Your task to perform on an android device: Clear all items from cart on walmart.com. Search for "macbook pro" on walmart.com, select the first entry, and add it to the cart. Image 0: 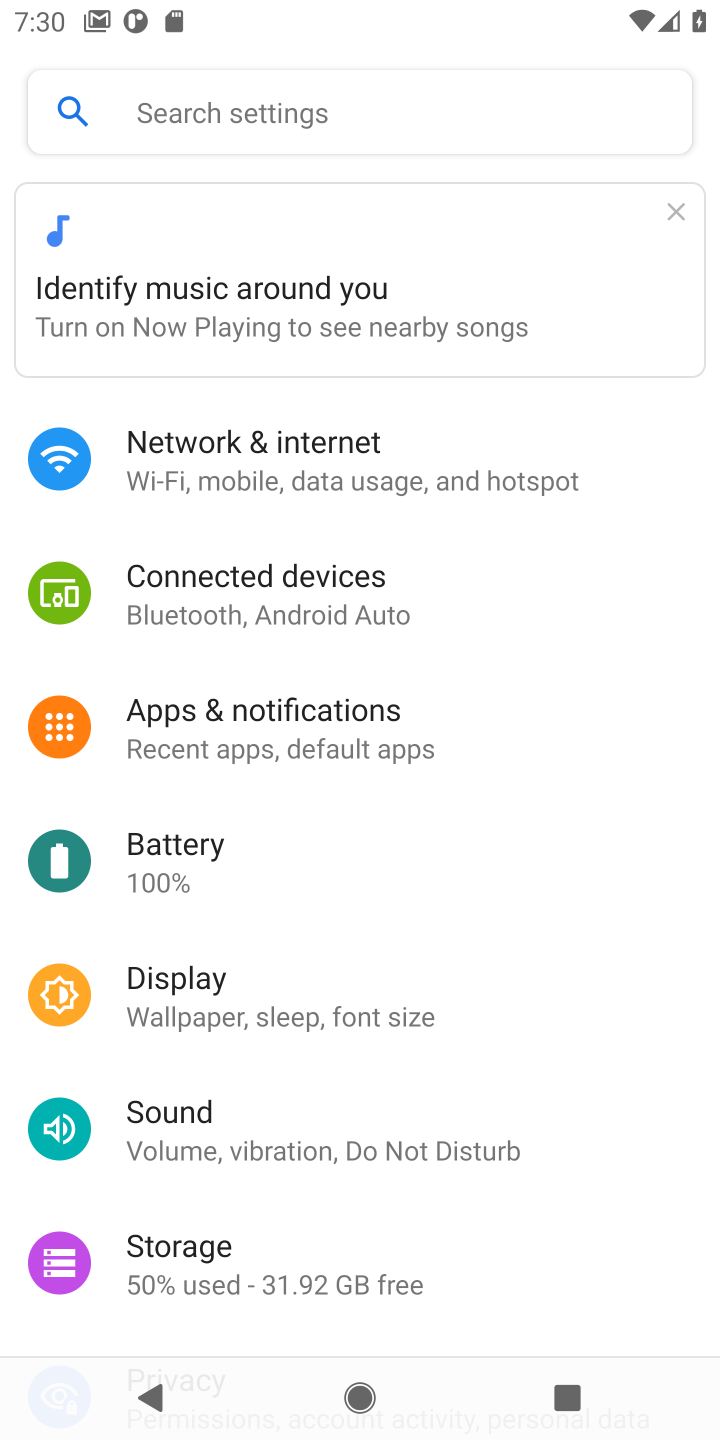
Step 0: press home button
Your task to perform on an android device: Clear all items from cart on walmart.com. Search for "macbook pro" on walmart.com, select the first entry, and add it to the cart. Image 1: 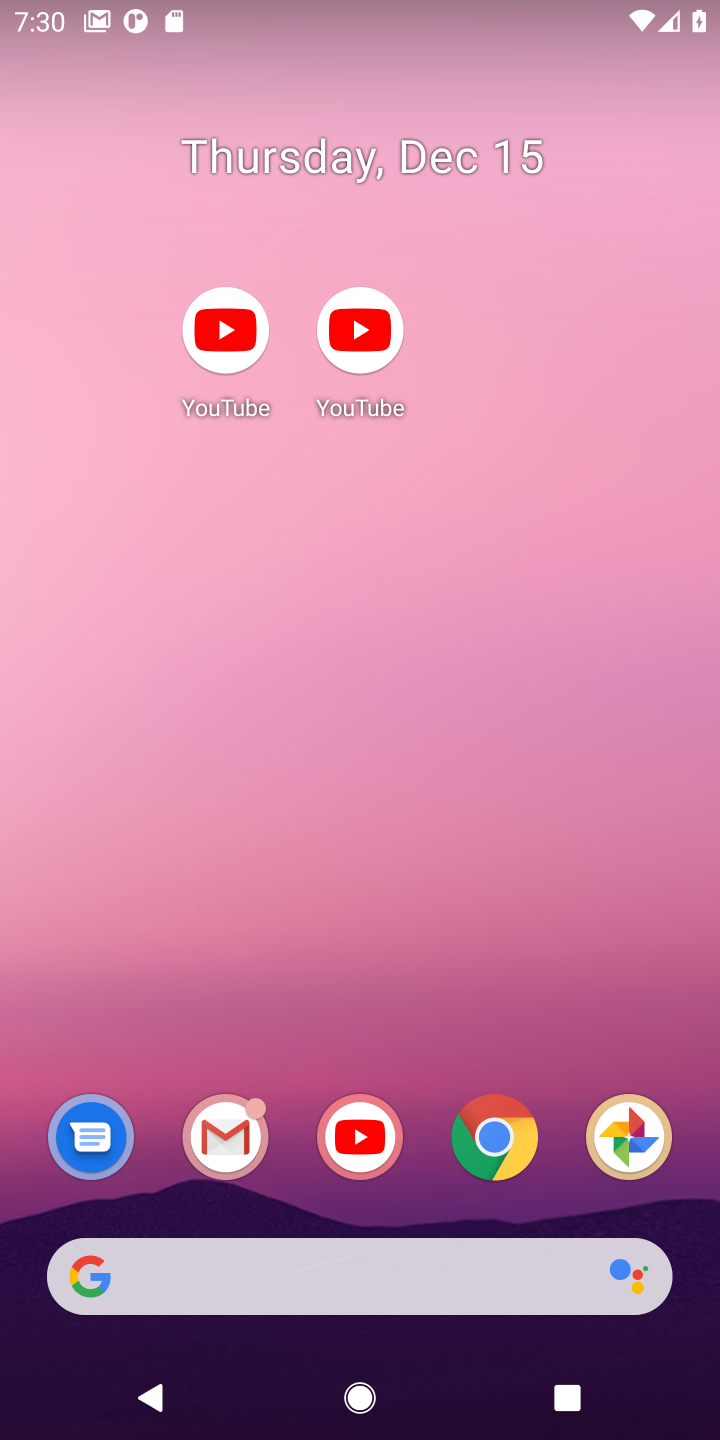
Step 1: drag from (255, 1238) to (264, 467)
Your task to perform on an android device: Clear all items from cart on walmart.com. Search for "macbook pro" on walmart.com, select the first entry, and add it to the cart. Image 2: 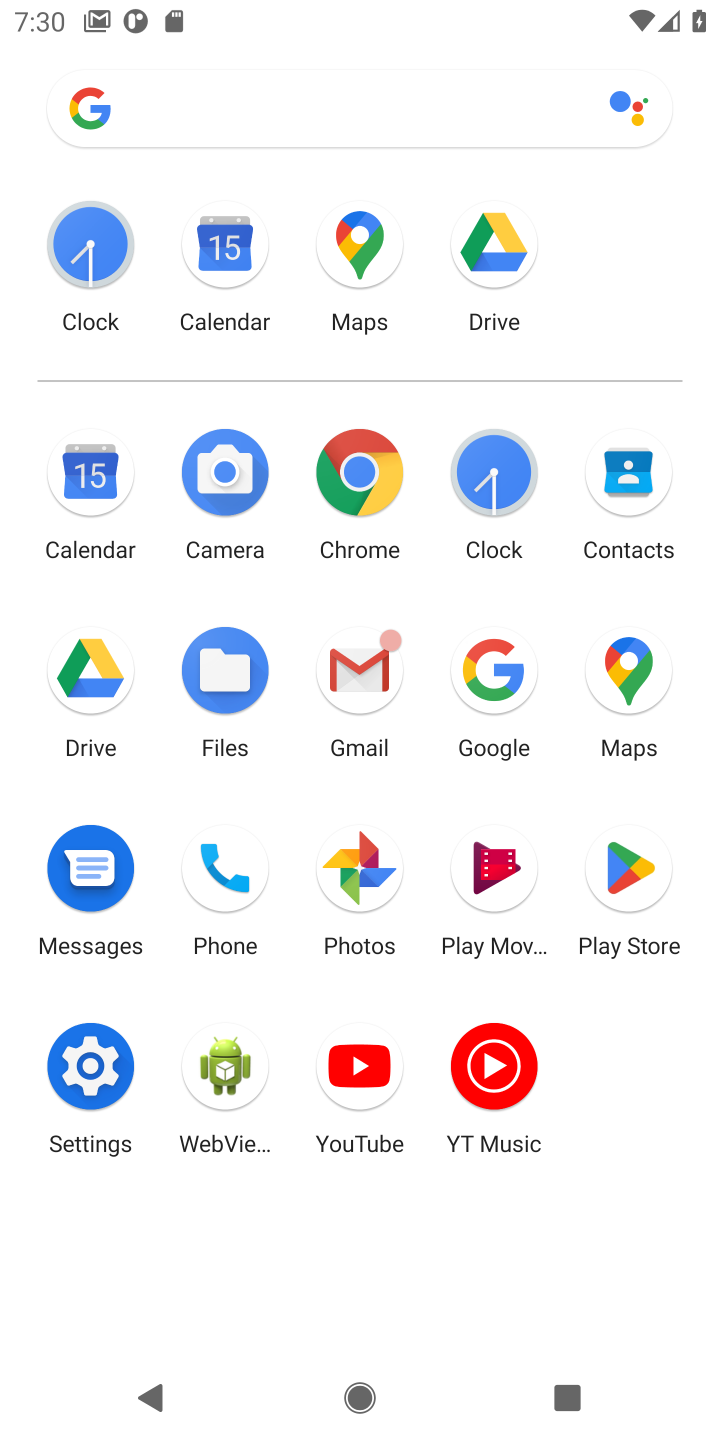
Step 2: click (475, 677)
Your task to perform on an android device: Clear all items from cart on walmart.com. Search for "macbook pro" on walmart.com, select the first entry, and add it to the cart. Image 3: 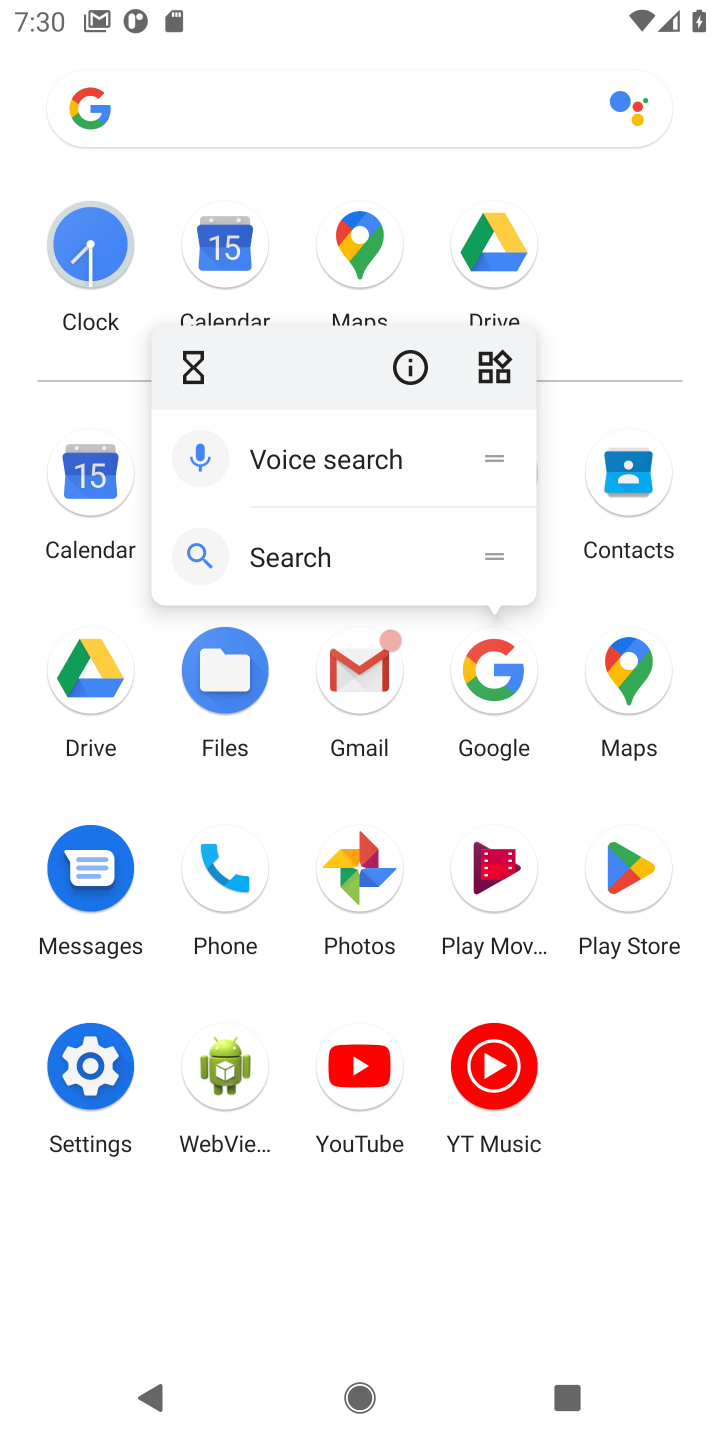
Step 3: click (496, 660)
Your task to perform on an android device: Clear all items from cart on walmart.com. Search for "macbook pro" on walmart.com, select the first entry, and add it to the cart. Image 4: 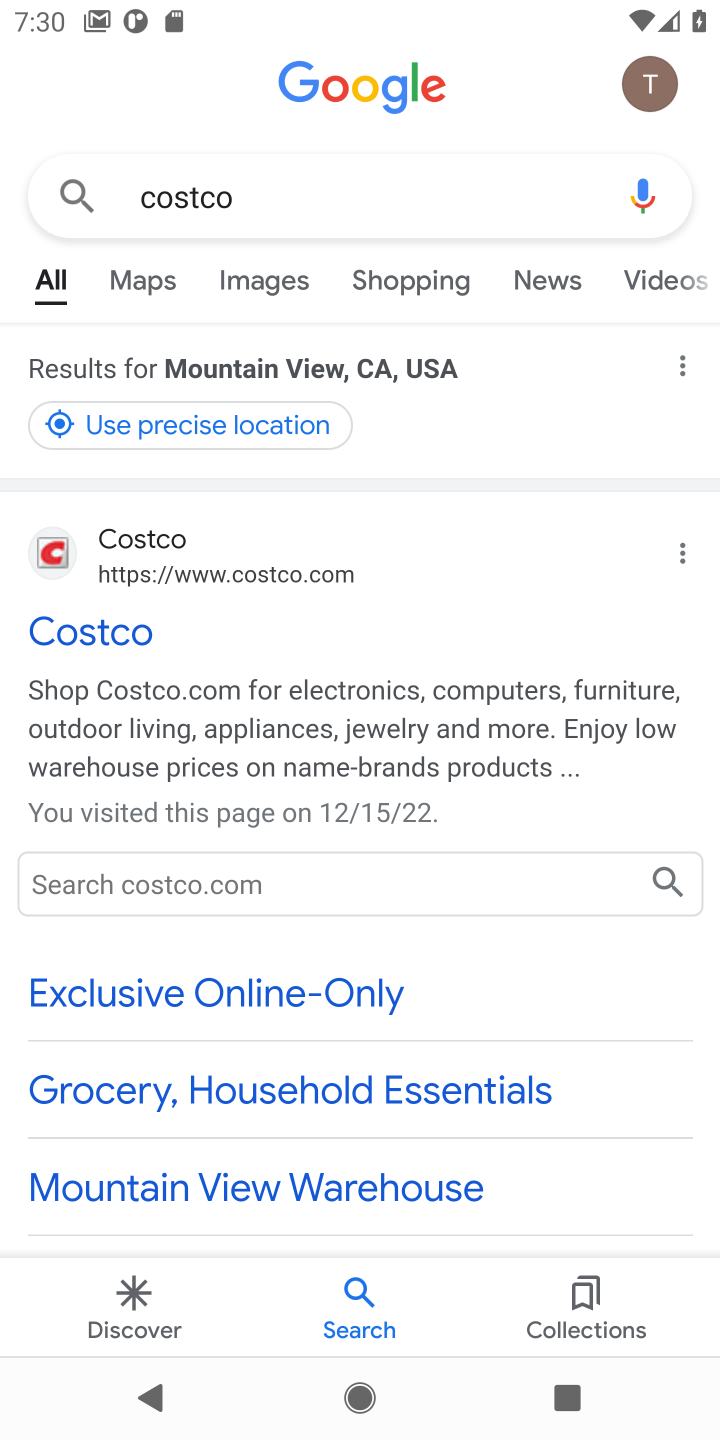
Step 4: click (212, 203)
Your task to perform on an android device: Clear all items from cart on walmart.com. Search for "macbook pro" on walmart.com, select the first entry, and add it to the cart. Image 5: 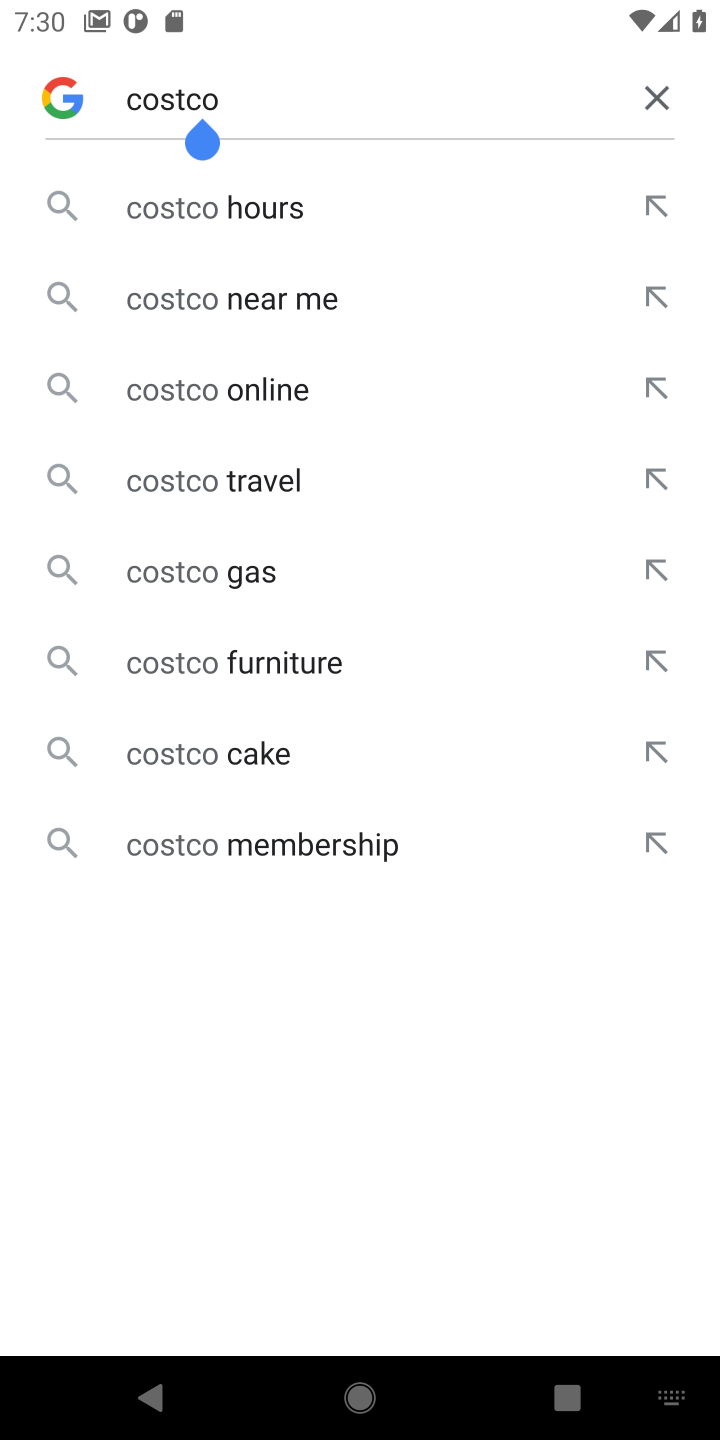
Step 5: click (646, 101)
Your task to perform on an android device: Clear all items from cart on walmart.com. Search for "macbook pro" on walmart.com, select the first entry, and add it to the cart. Image 6: 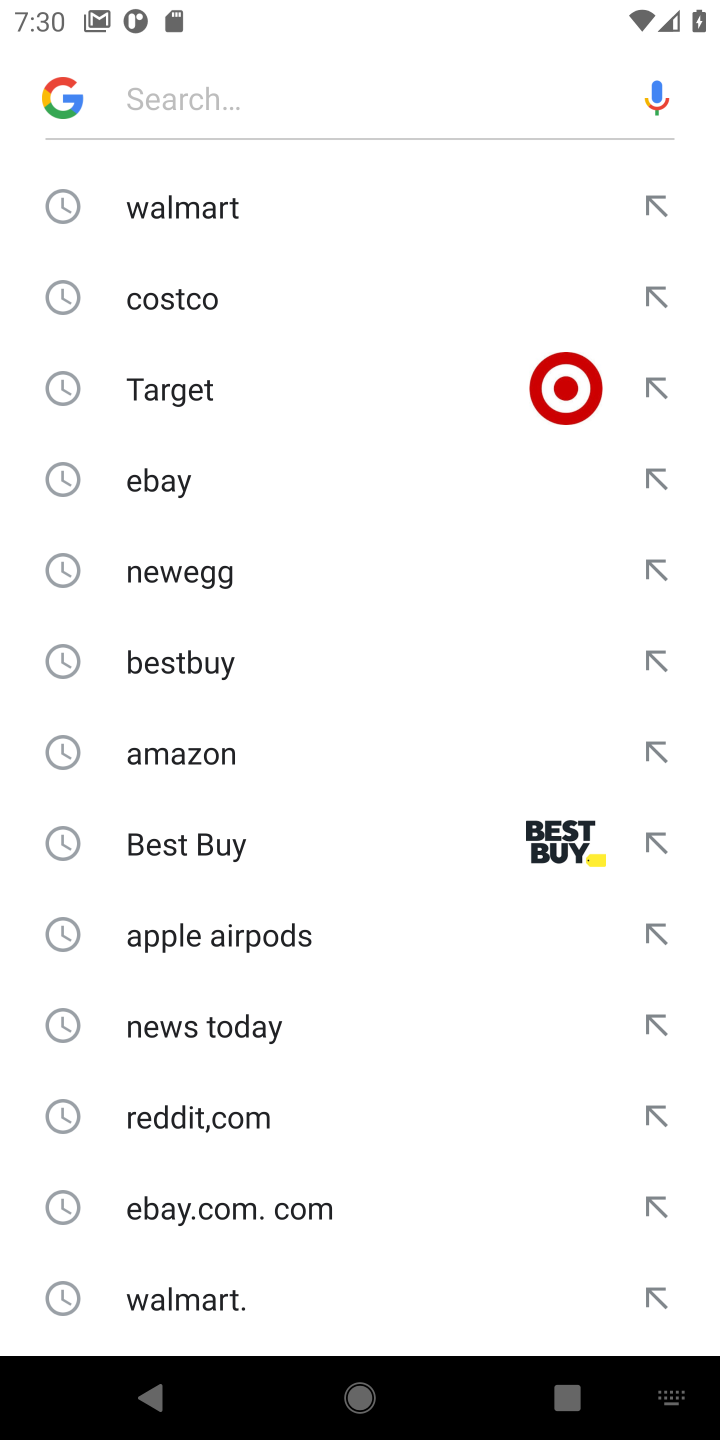
Step 6: click (185, 208)
Your task to perform on an android device: Clear all items from cart on walmart.com. Search for "macbook pro" on walmart.com, select the first entry, and add it to the cart. Image 7: 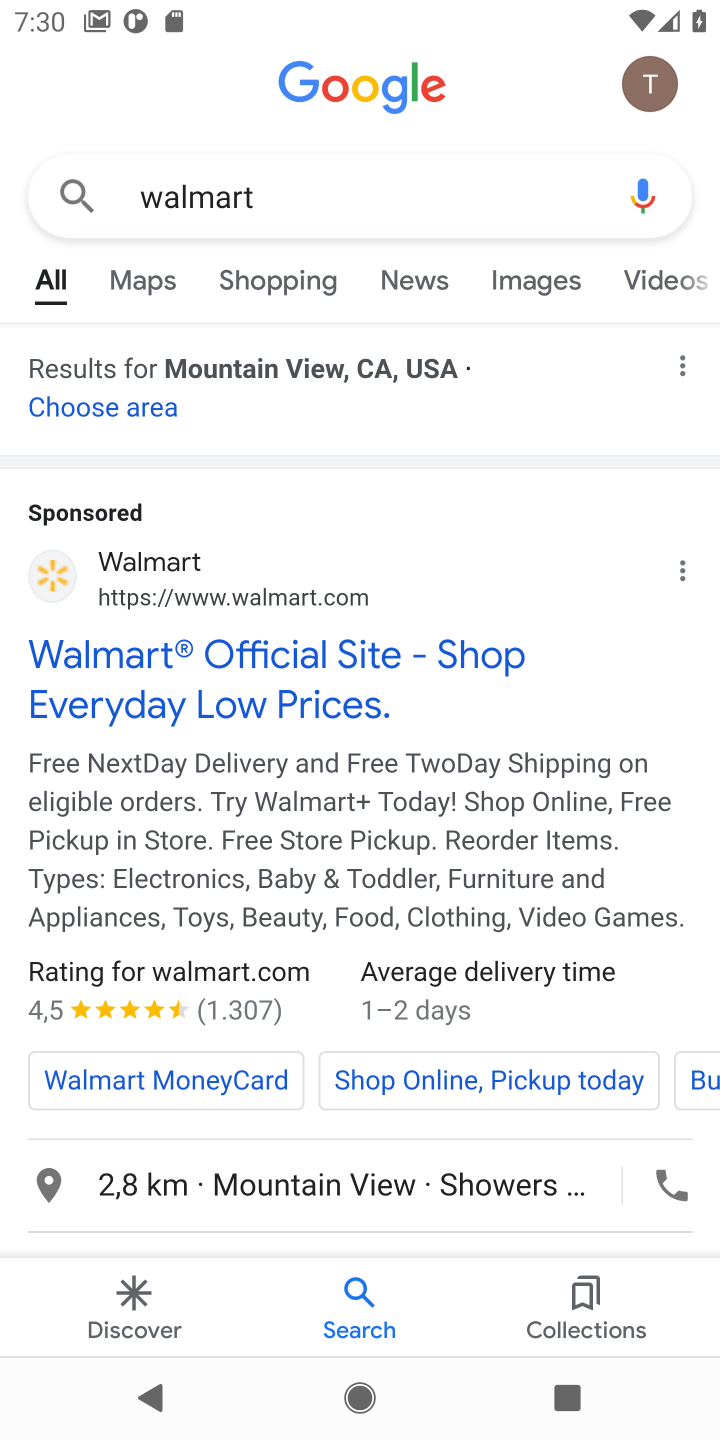
Step 7: drag from (208, 716) to (188, 420)
Your task to perform on an android device: Clear all items from cart on walmart.com. Search for "macbook pro" on walmart.com, select the first entry, and add it to the cart. Image 8: 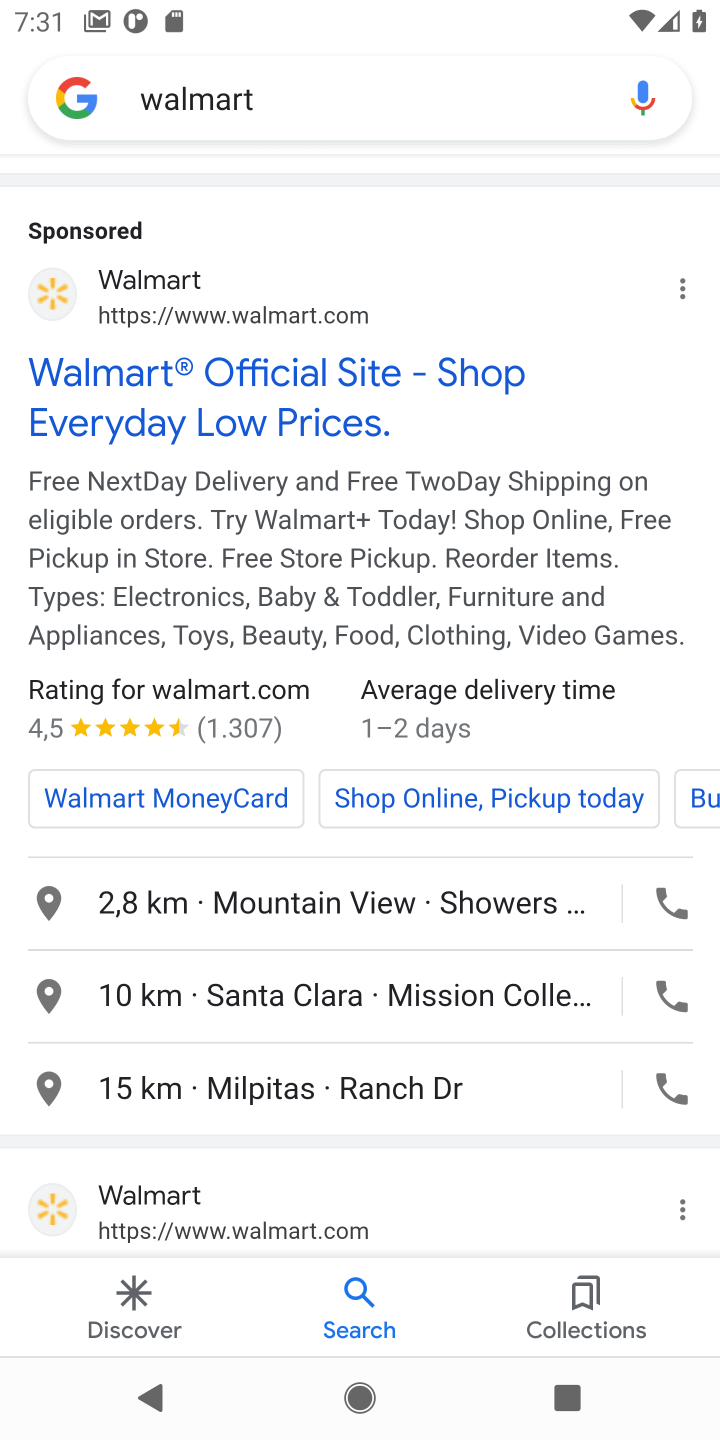
Step 8: drag from (245, 1131) to (230, 626)
Your task to perform on an android device: Clear all items from cart on walmart.com. Search for "macbook pro" on walmart.com, select the first entry, and add it to the cart. Image 9: 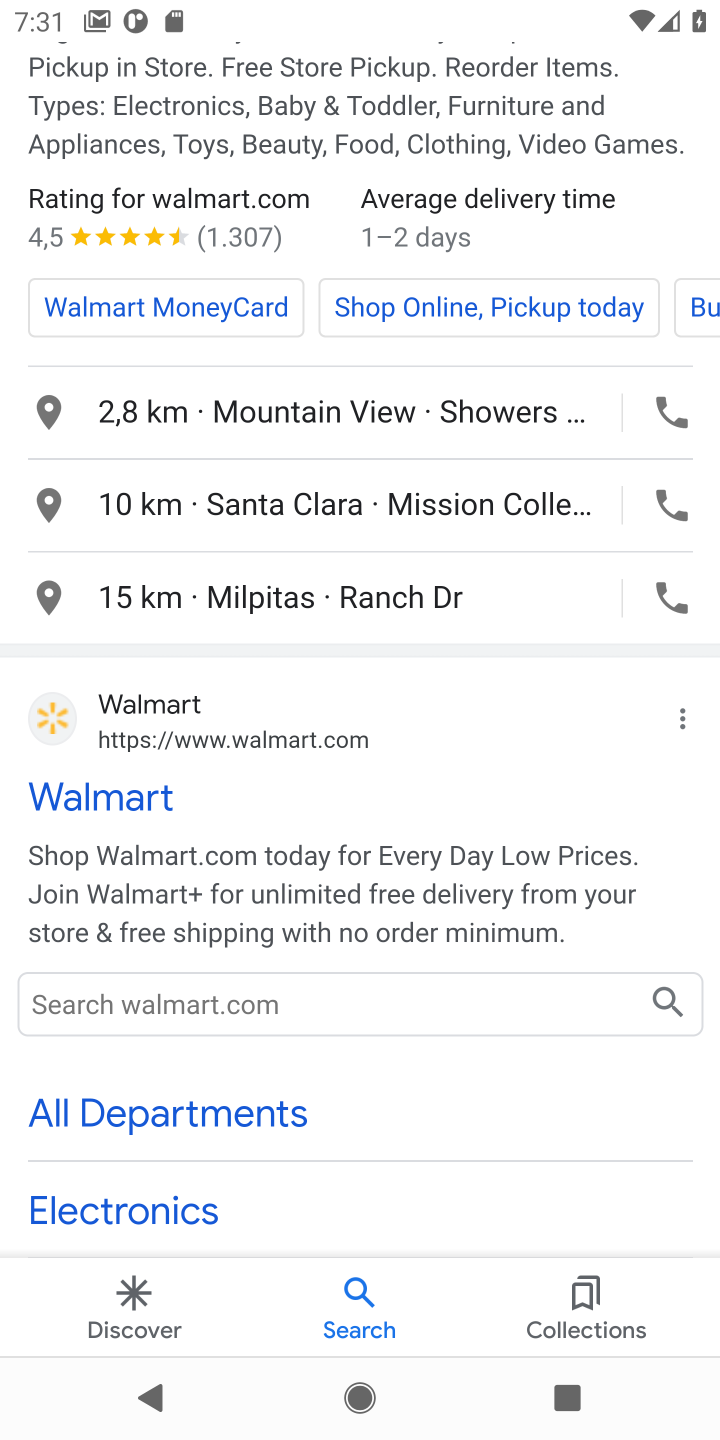
Step 9: click (76, 789)
Your task to perform on an android device: Clear all items from cart on walmart.com. Search for "macbook pro" on walmart.com, select the first entry, and add it to the cart. Image 10: 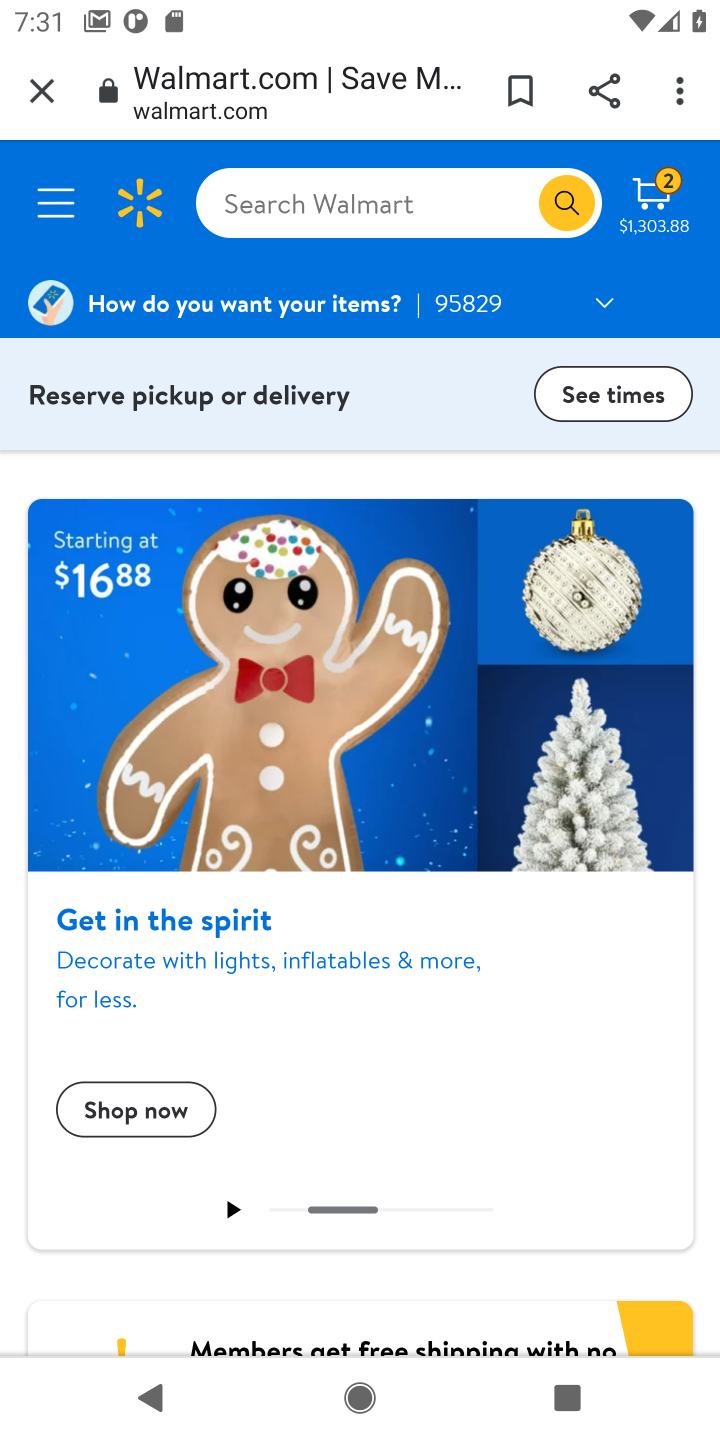
Step 10: click (635, 187)
Your task to perform on an android device: Clear all items from cart on walmart.com. Search for "macbook pro" on walmart.com, select the first entry, and add it to the cart. Image 11: 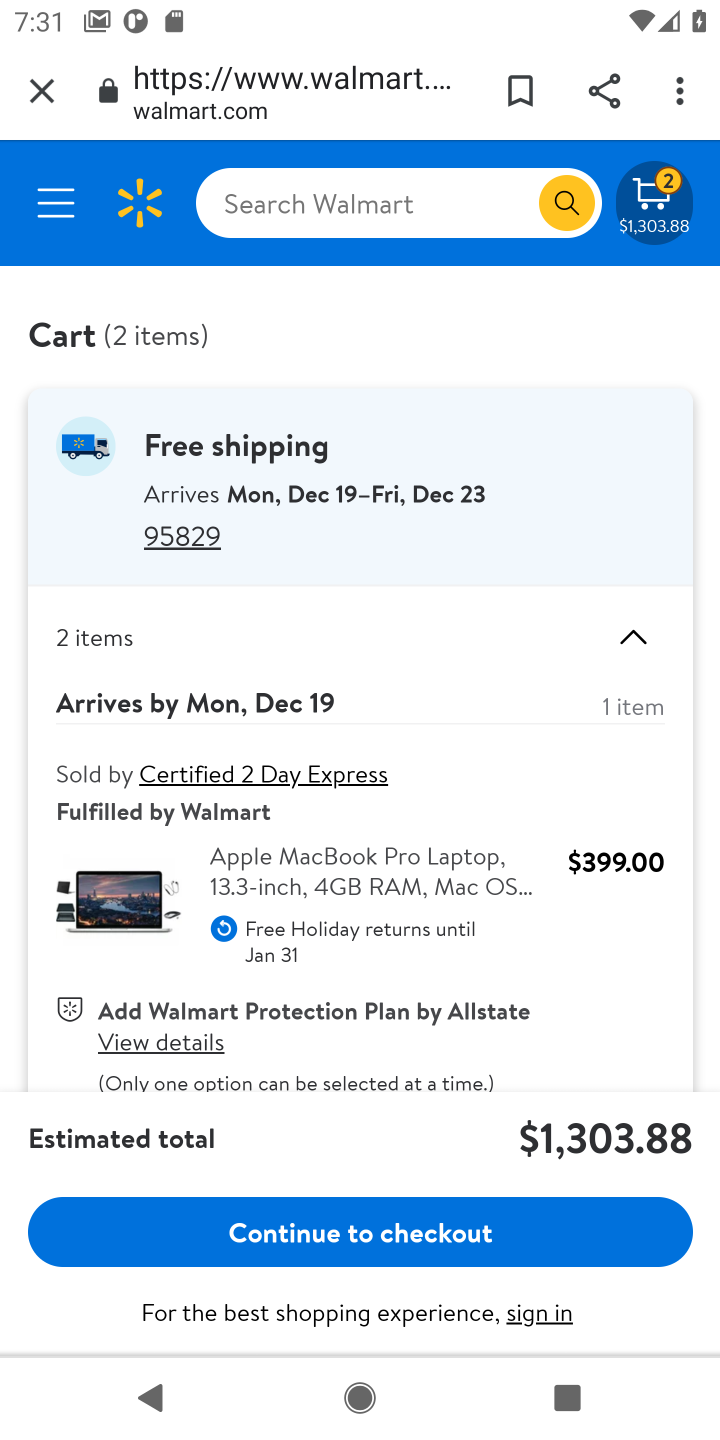
Step 11: drag from (179, 1085) to (179, 661)
Your task to perform on an android device: Clear all items from cart on walmart.com. Search for "macbook pro" on walmart.com, select the first entry, and add it to the cart. Image 12: 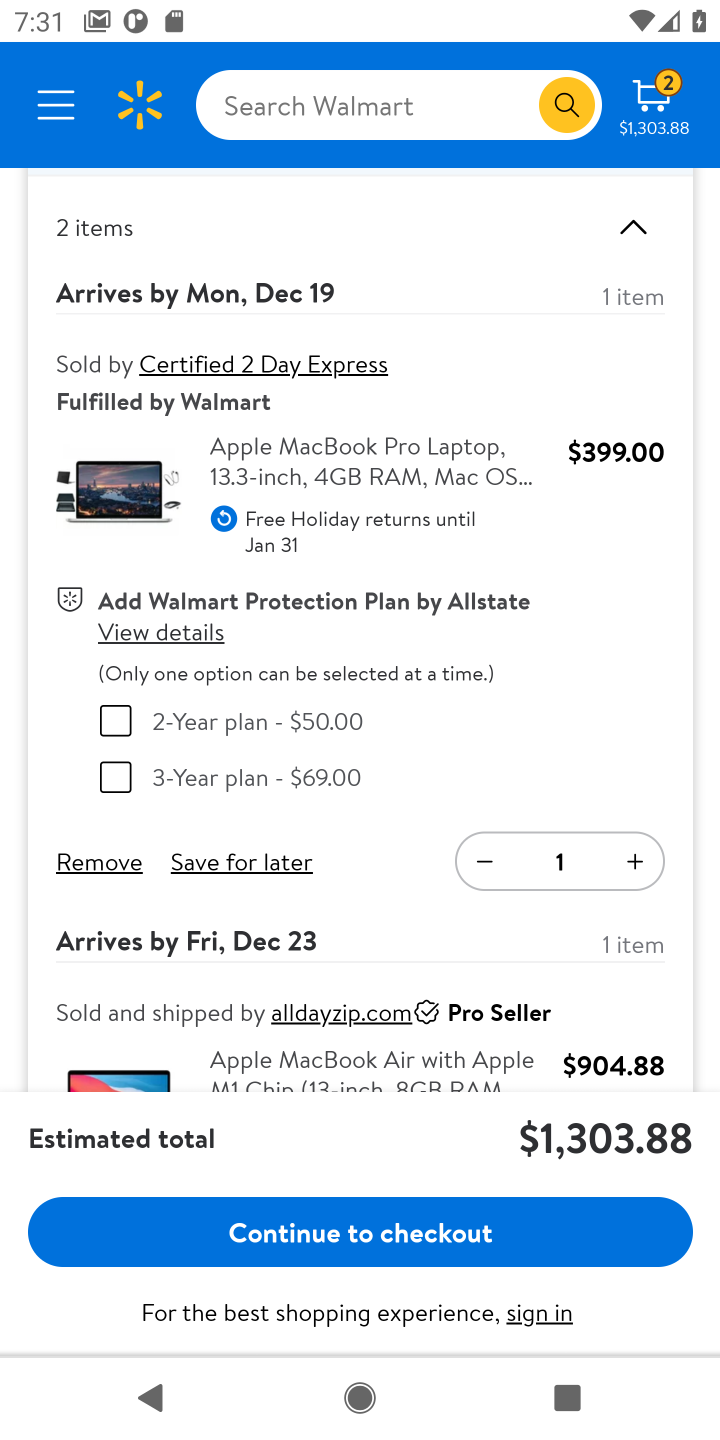
Step 12: click (98, 877)
Your task to perform on an android device: Clear all items from cart on walmart.com. Search for "macbook pro" on walmart.com, select the first entry, and add it to the cart. Image 13: 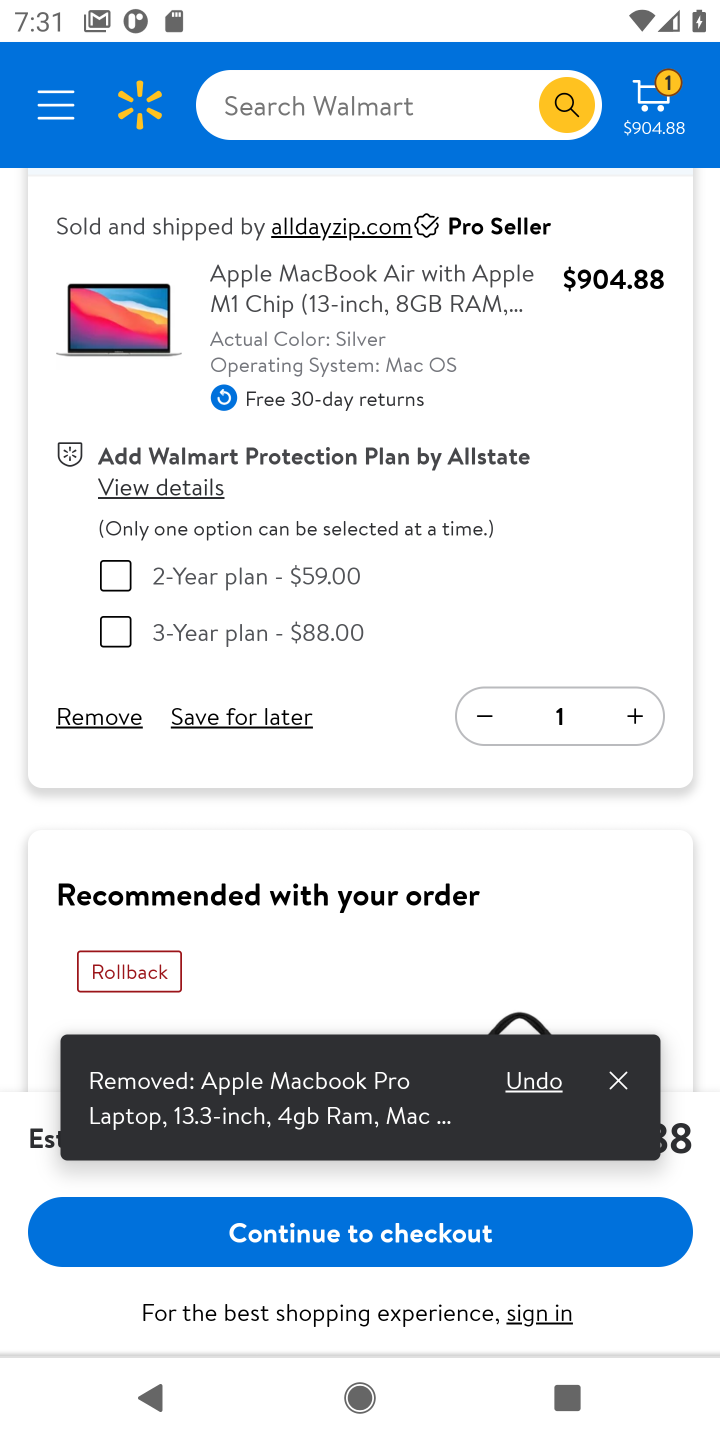
Step 13: click (100, 714)
Your task to perform on an android device: Clear all items from cart on walmart.com. Search for "macbook pro" on walmart.com, select the first entry, and add it to the cart. Image 14: 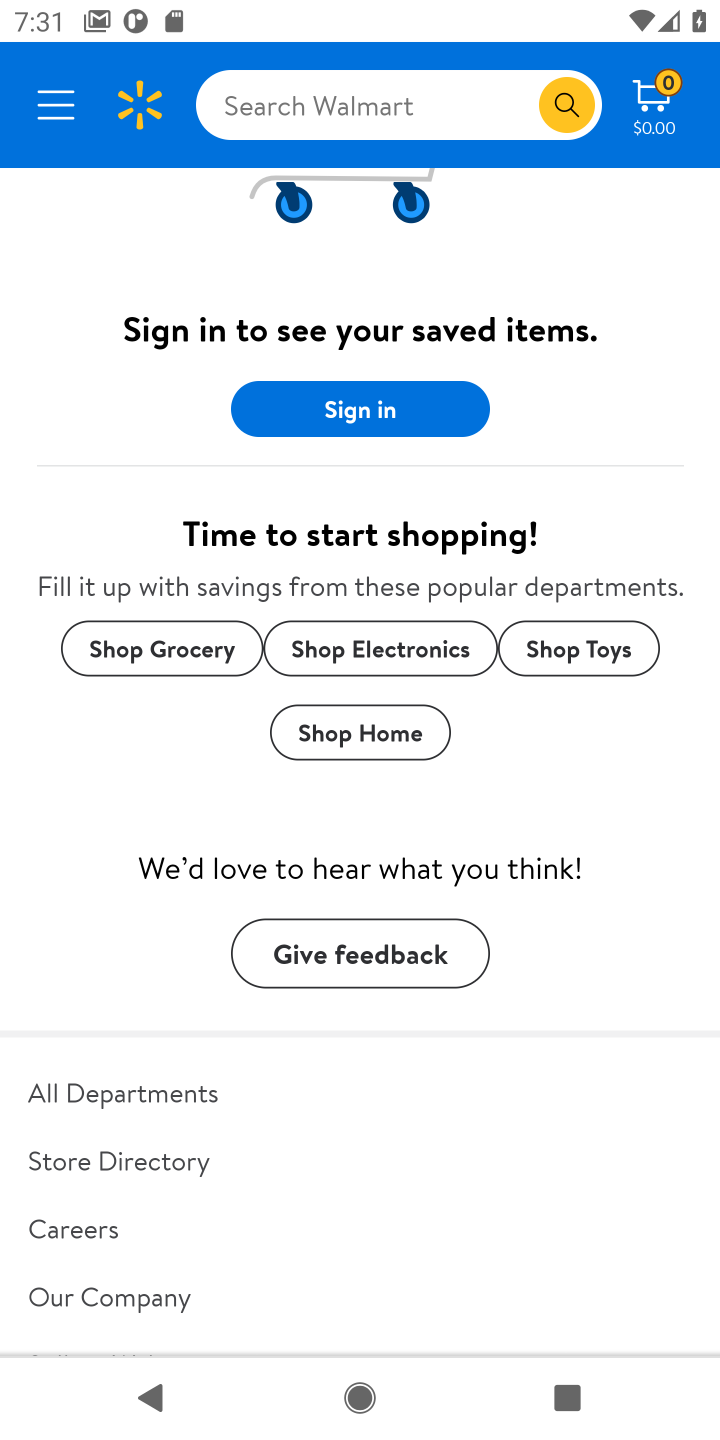
Step 14: click (303, 110)
Your task to perform on an android device: Clear all items from cart on walmart.com. Search for "macbook pro" on walmart.com, select the first entry, and add it to the cart. Image 15: 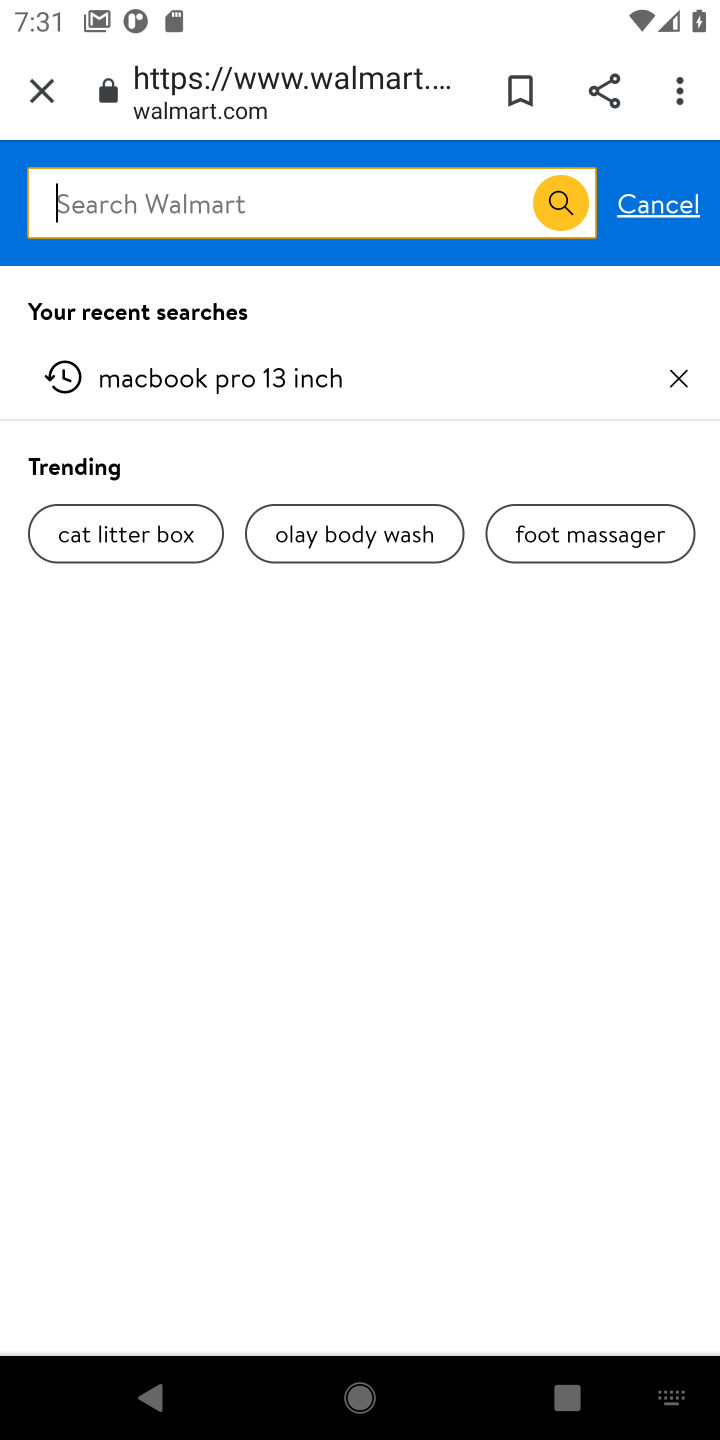
Step 15: type "macbook pro"
Your task to perform on an android device: Clear all items from cart on walmart.com. Search for "macbook pro" on walmart.com, select the first entry, and add it to the cart. Image 16: 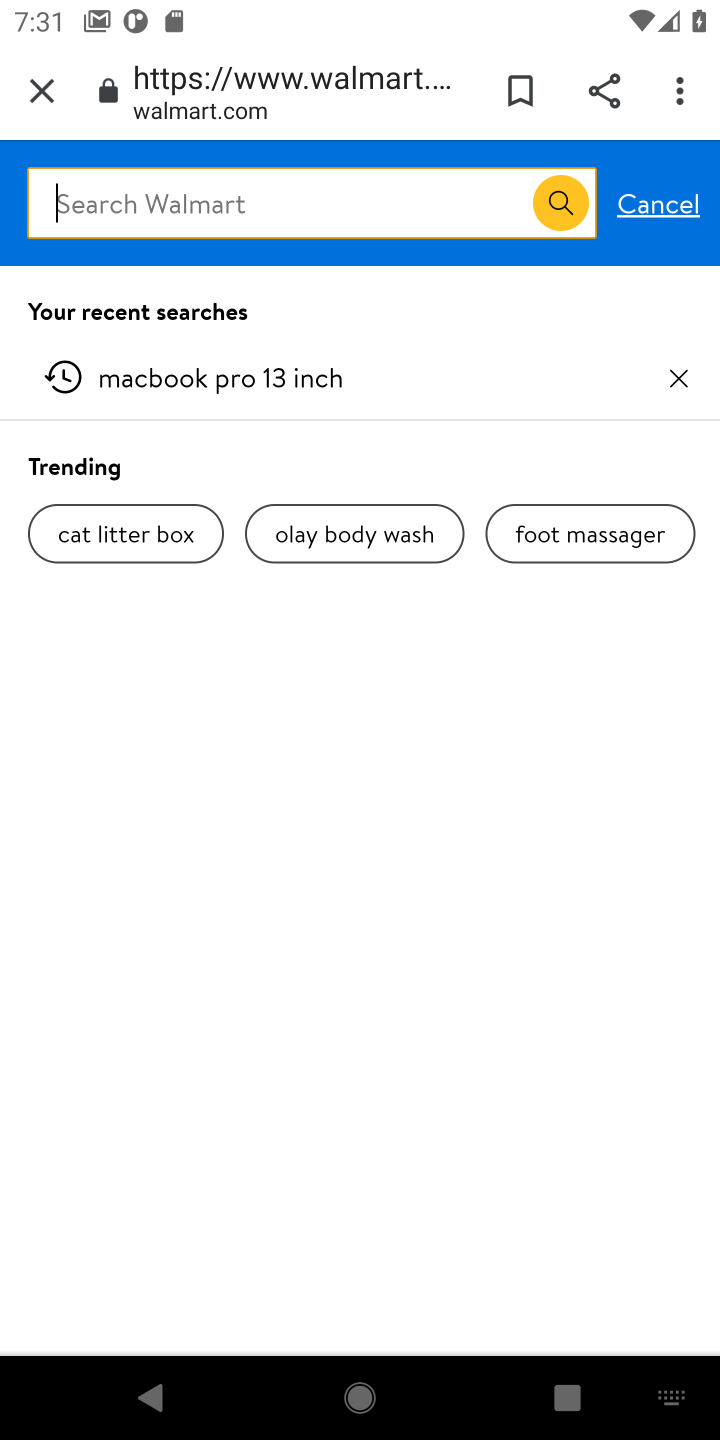
Step 16: click (570, 198)
Your task to perform on an android device: Clear all items from cart on walmart.com. Search for "macbook pro" on walmart.com, select the first entry, and add it to the cart. Image 17: 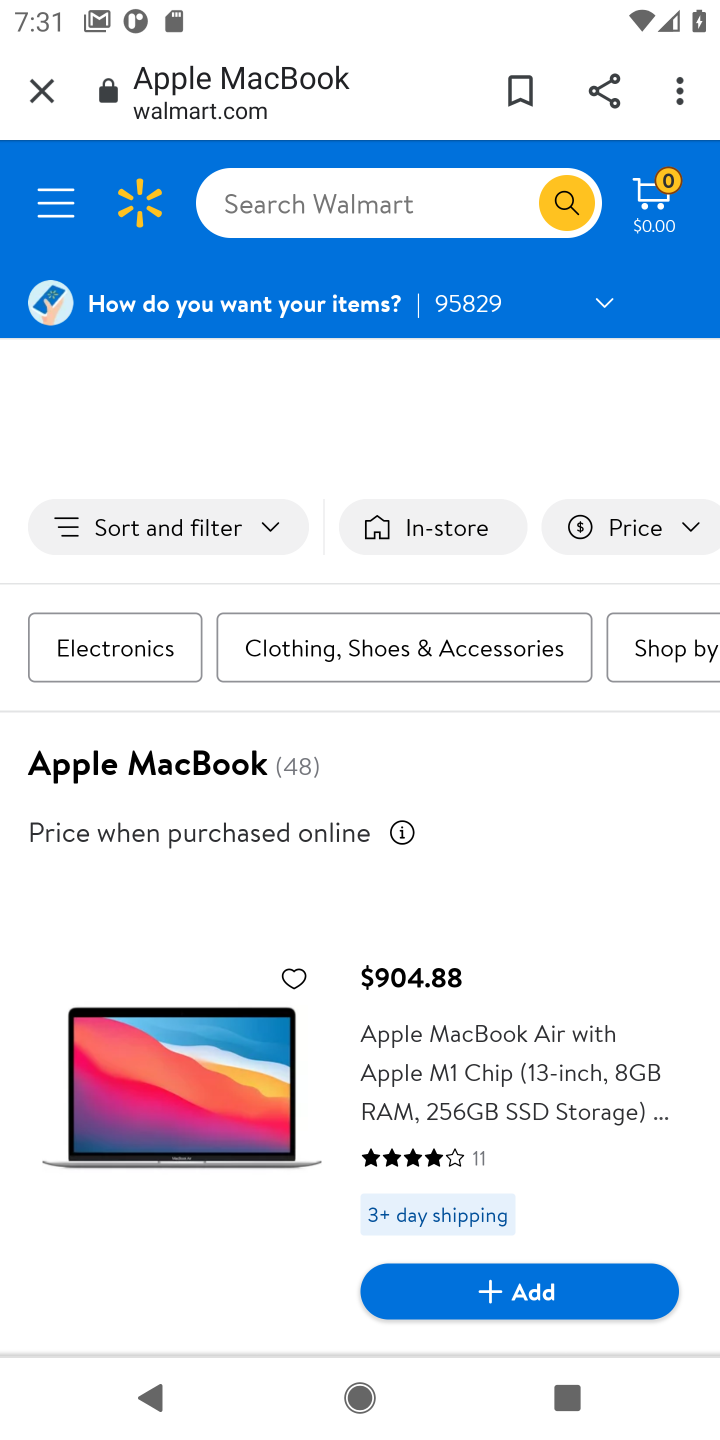
Step 17: click (518, 1284)
Your task to perform on an android device: Clear all items from cart on walmart.com. Search for "macbook pro" on walmart.com, select the first entry, and add it to the cart. Image 18: 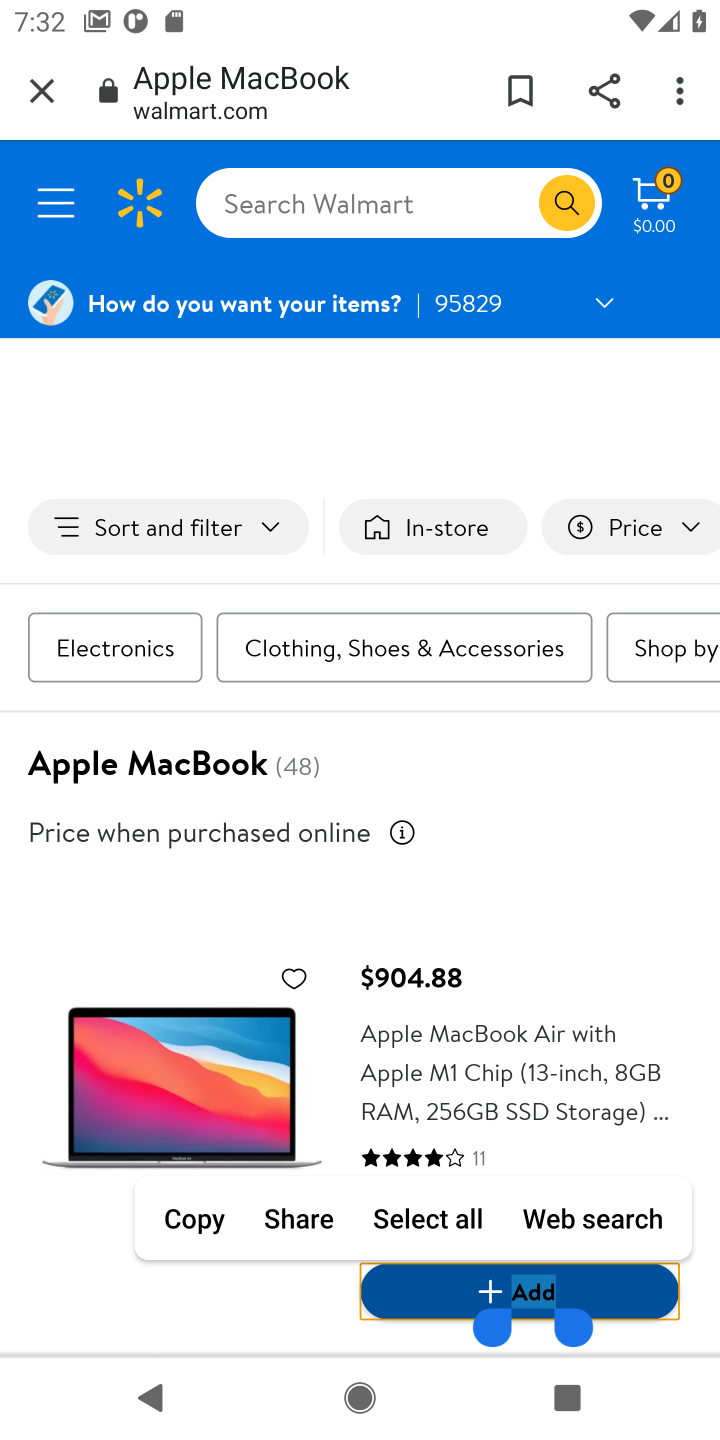
Step 18: click (271, 1337)
Your task to perform on an android device: Clear all items from cart on walmart.com. Search for "macbook pro" on walmart.com, select the first entry, and add it to the cart. Image 19: 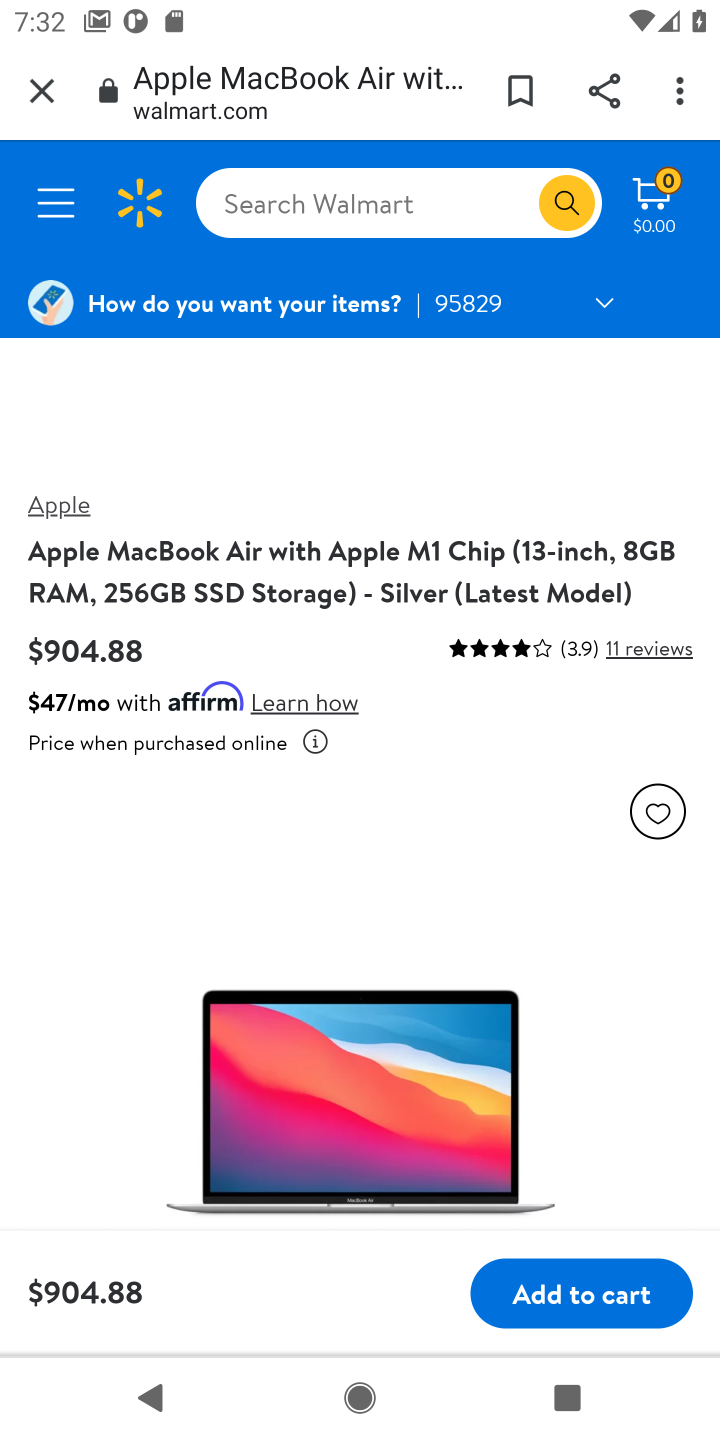
Step 19: click (604, 1296)
Your task to perform on an android device: Clear all items from cart on walmart.com. Search for "macbook pro" on walmart.com, select the first entry, and add it to the cart. Image 20: 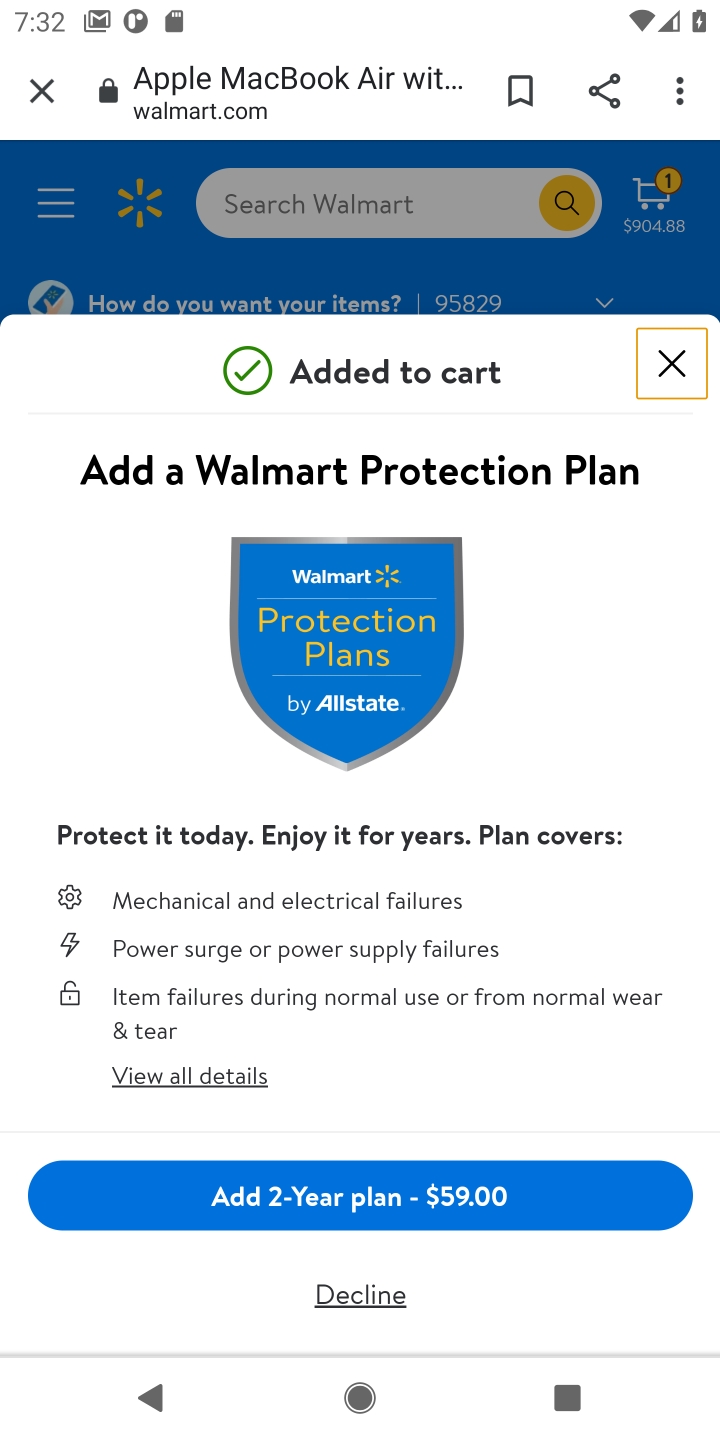
Step 20: click (675, 368)
Your task to perform on an android device: Clear all items from cart on walmart.com. Search for "macbook pro" on walmart.com, select the first entry, and add it to the cart. Image 21: 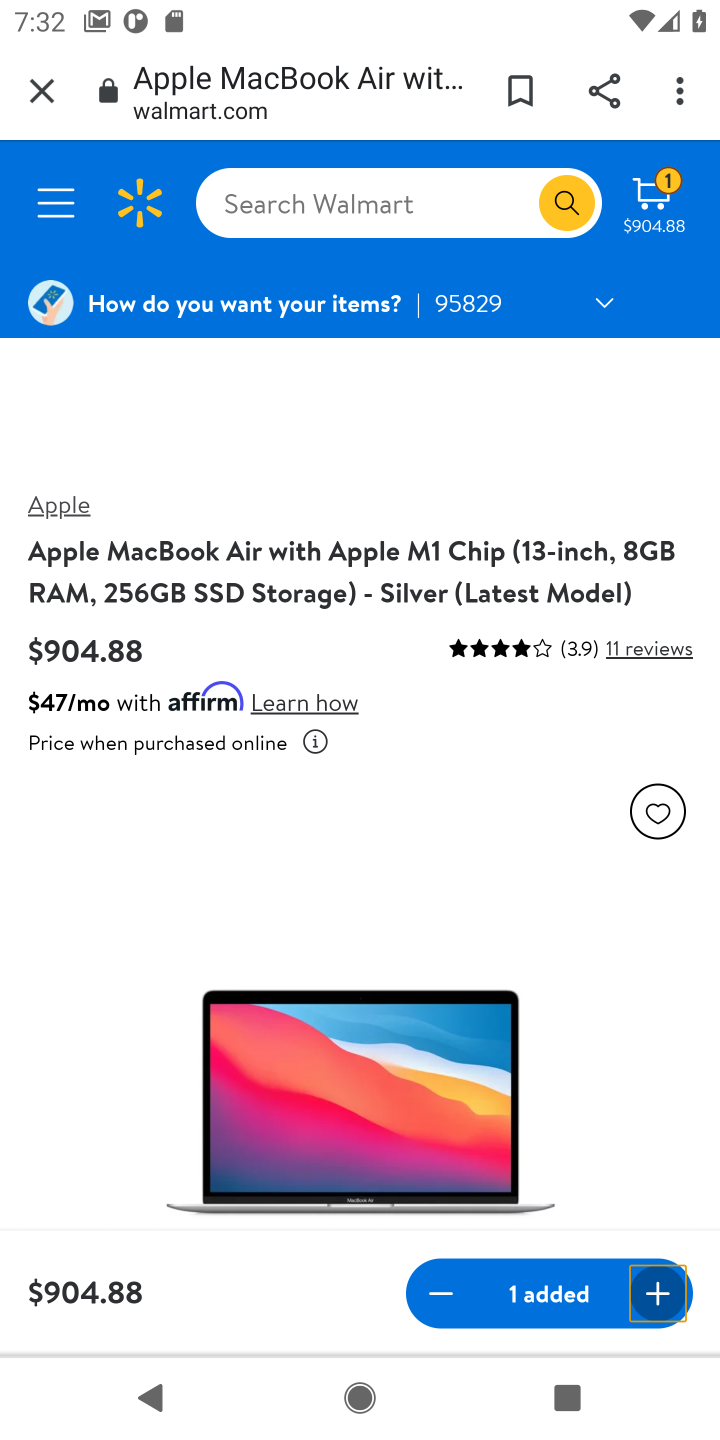
Step 21: click (654, 208)
Your task to perform on an android device: Clear all items from cart on walmart.com. Search for "macbook pro" on walmart.com, select the first entry, and add it to the cart. Image 22: 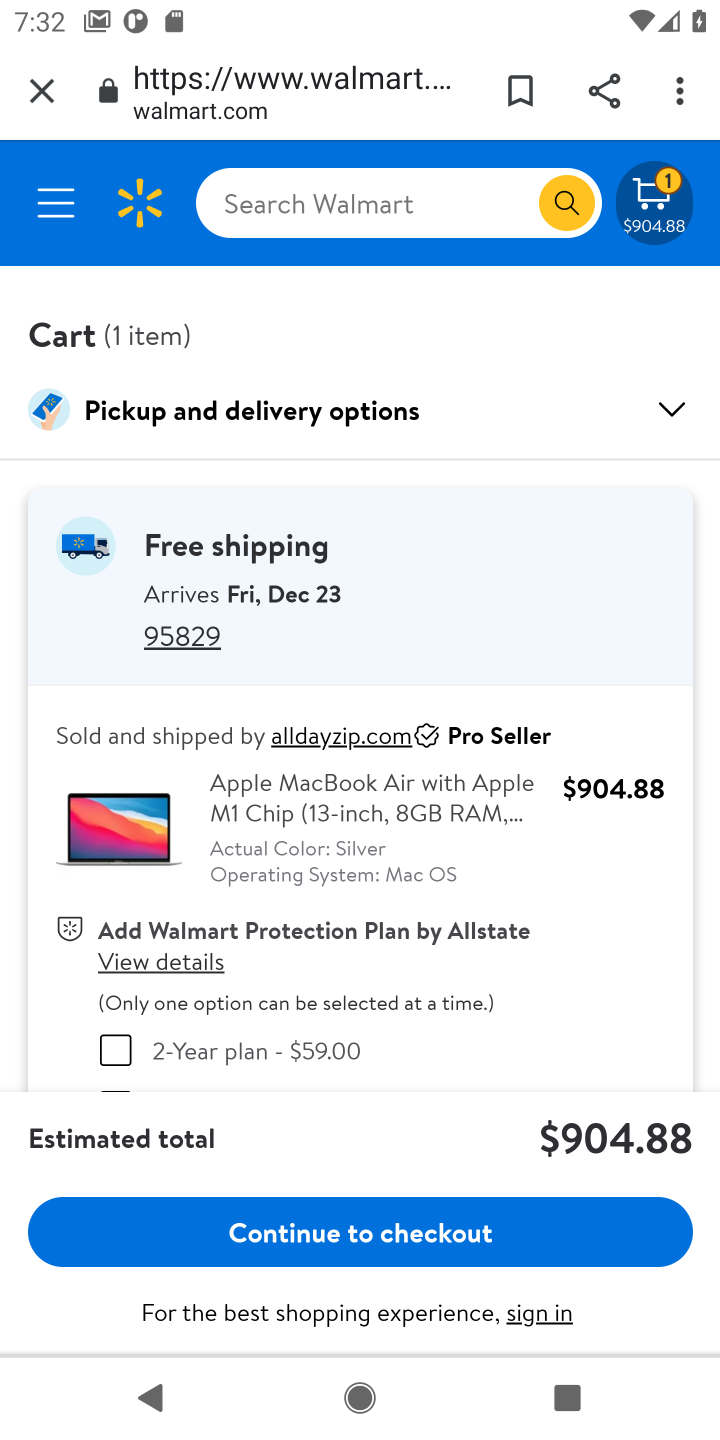
Step 22: click (360, 1238)
Your task to perform on an android device: Clear all items from cart on walmart.com. Search for "macbook pro" on walmart.com, select the first entry, and add it to the cart. Image 23: 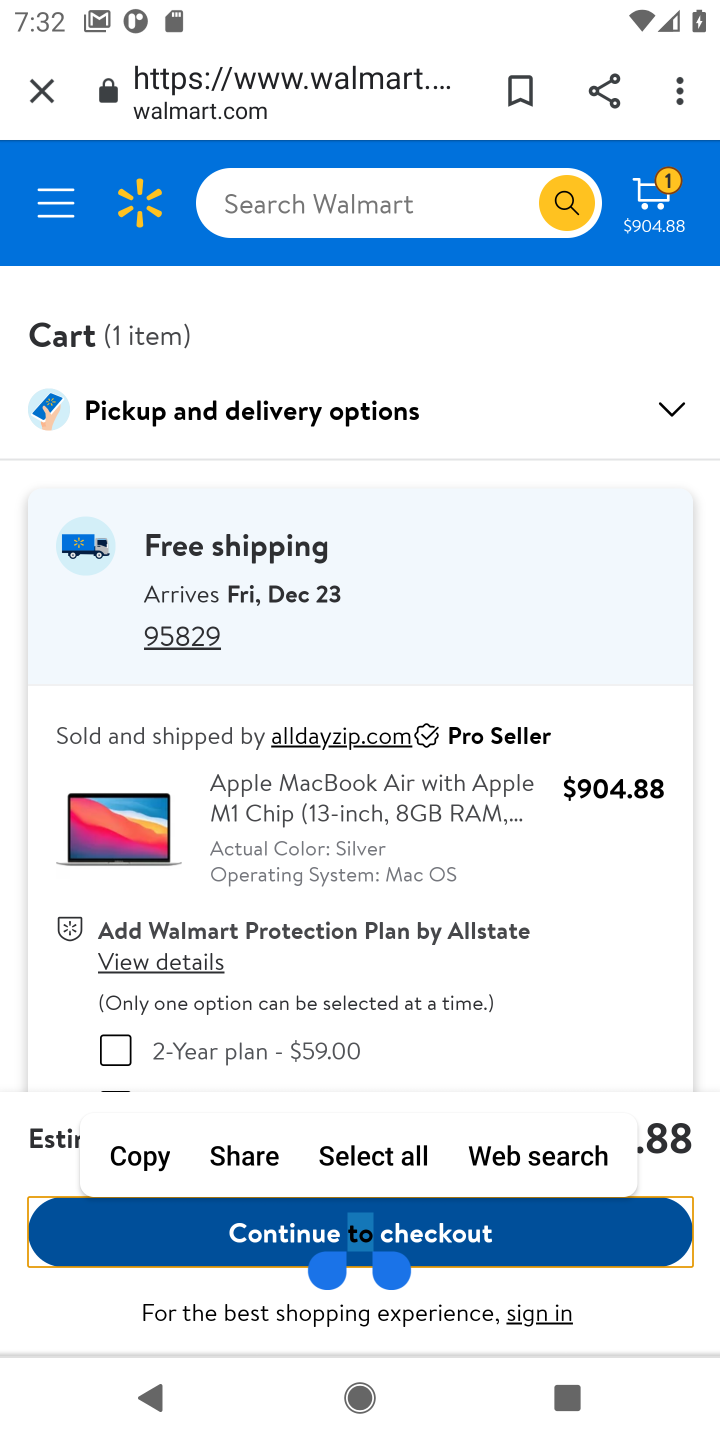
Step 23: click (246, 1224)
Your task to perform on an android device: Clear all items from cart on walmart.com. Search for "macbook pro" on walmart.com, select the first entry, and add it to the cart. Image 24: 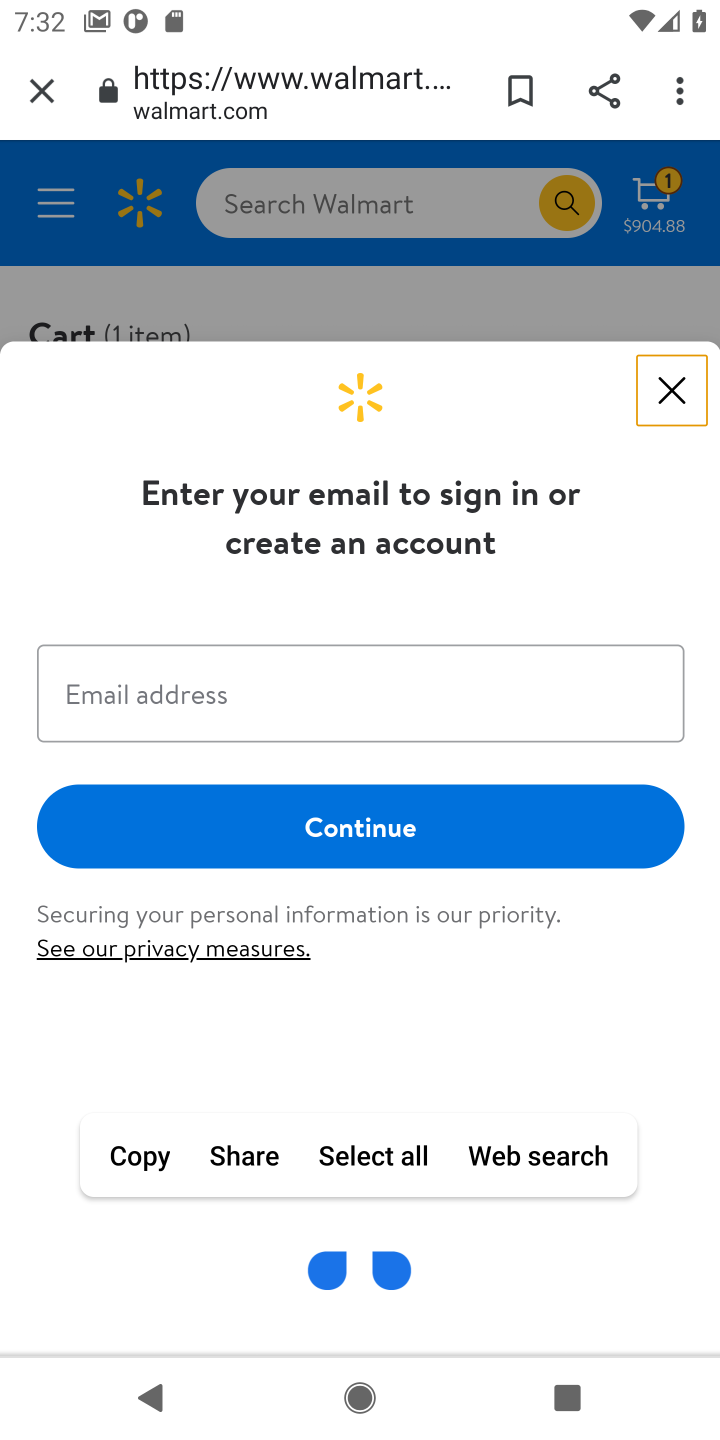
Step 24: task complete